Your task to perform on an android device: Go to Google Image 0: 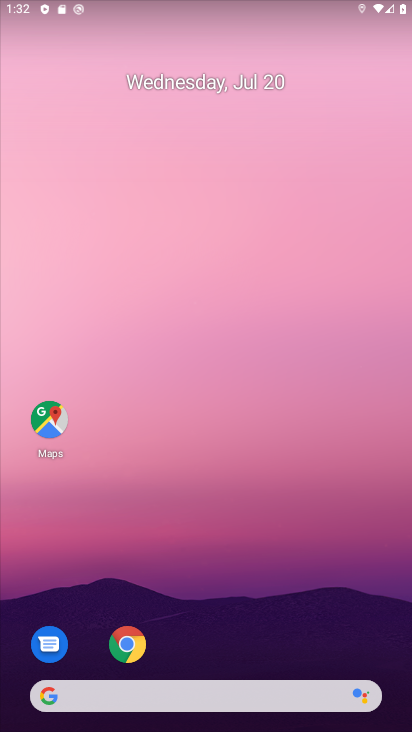
Step 0: drag from (250, 604) to (112, 6)
Your task to perform on an android device: Go to Google Image 1: 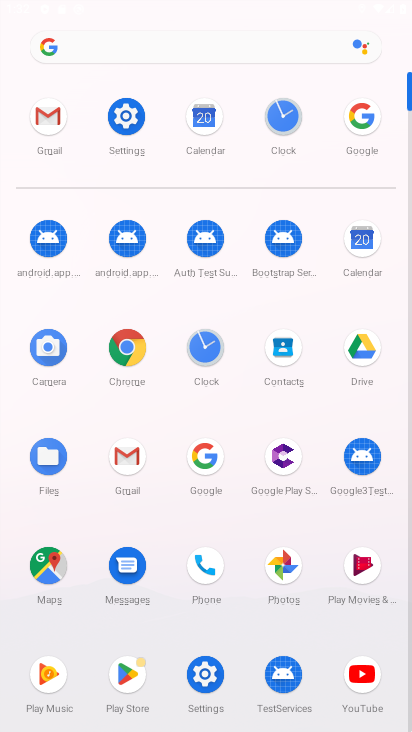
Step 1: click (199, 448)
Your task to perform on an android device: Go to Google Image 2: 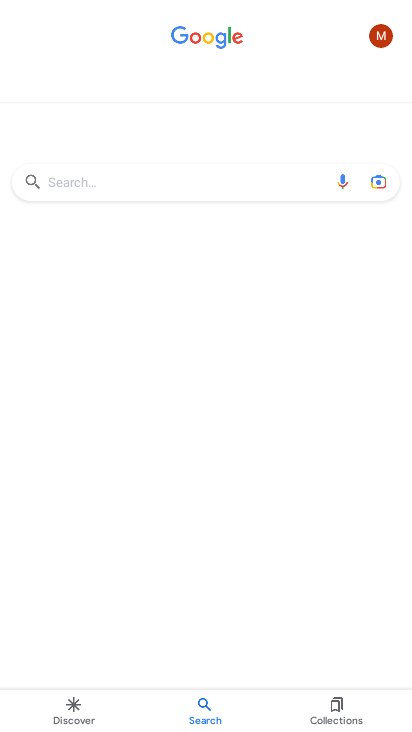
Step 2: task complete